Your task to perform on an android device: Go to ESPN.com Image 0: 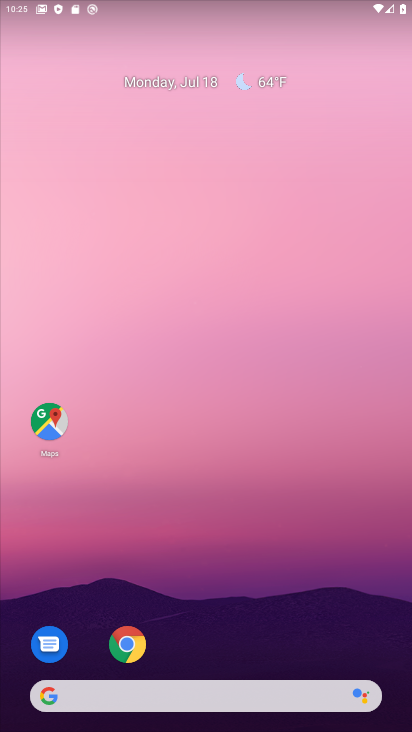
Step 0: click (127, 650)
Your task to perform on an android device: Go to ESPN.com Image 1: 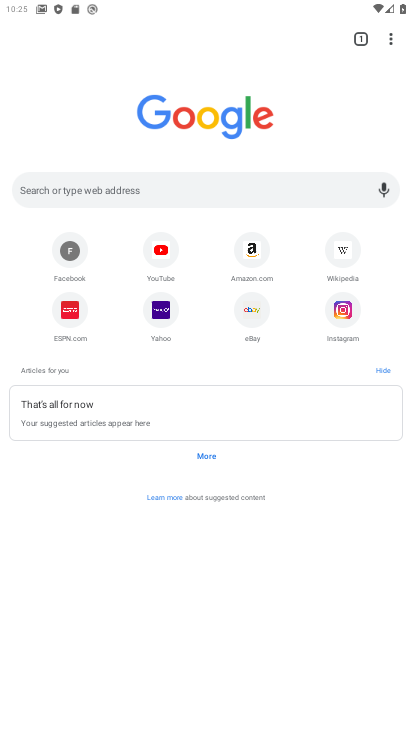
Step 1: click (64, 321)
Your task to perform on an android device: Go to ESPN.com Image 2: 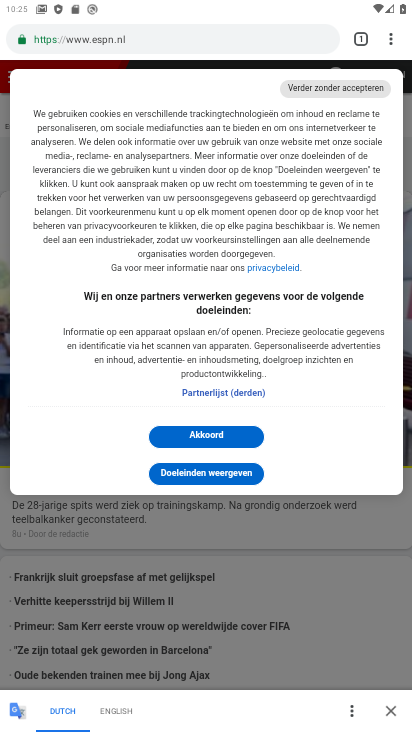
Step 2: task complete